Your task to perform on an android device: uninstall "Calculator" Image 0: 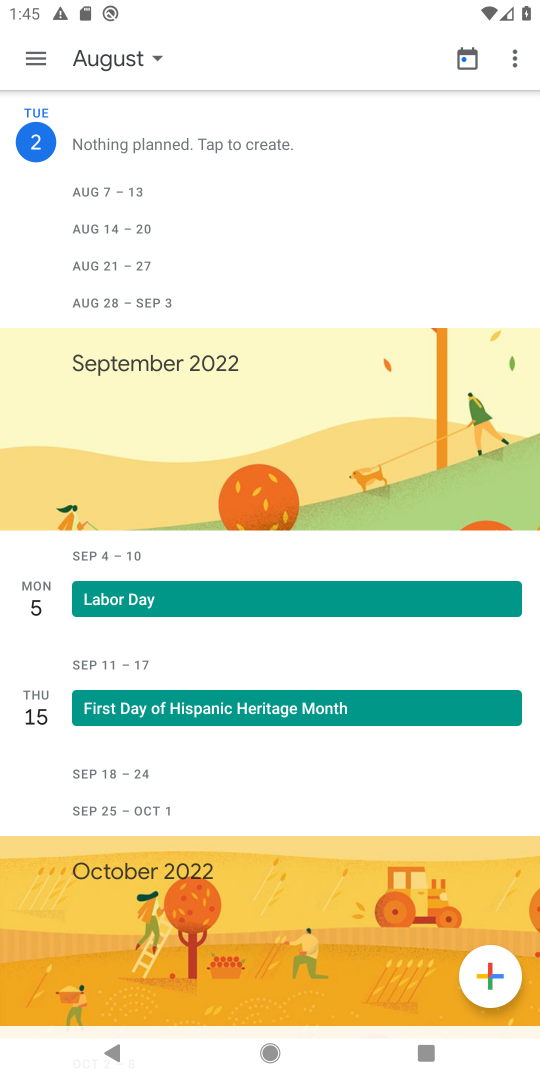
Step 0: press home button
Your task to perform on an android device: uninstall "Calculator" Image 1: 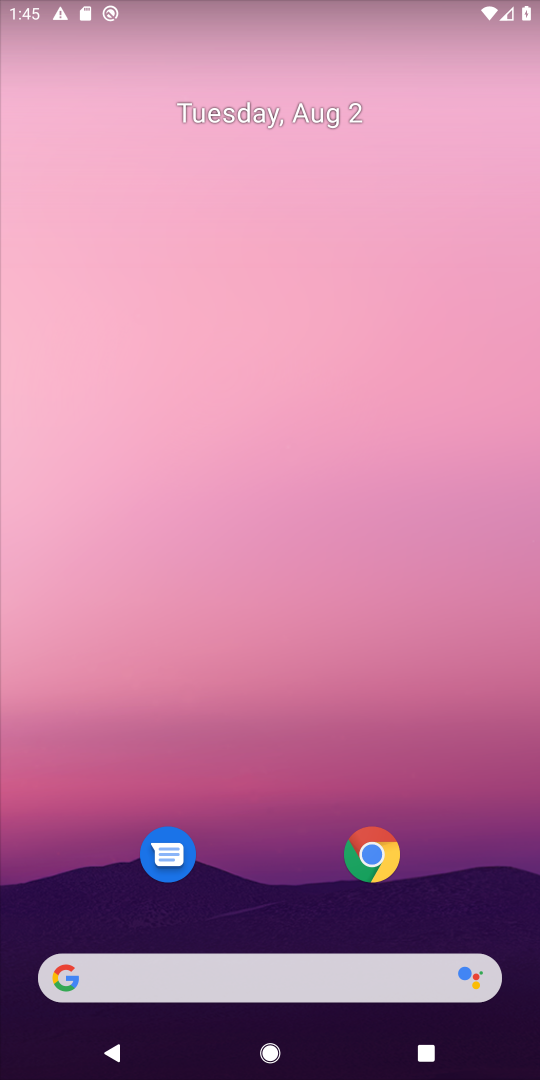
Step 1: drag from (301, 680) to (304, 231)
Your task to perform on an android device: uninstall "Calculator" Image 2: 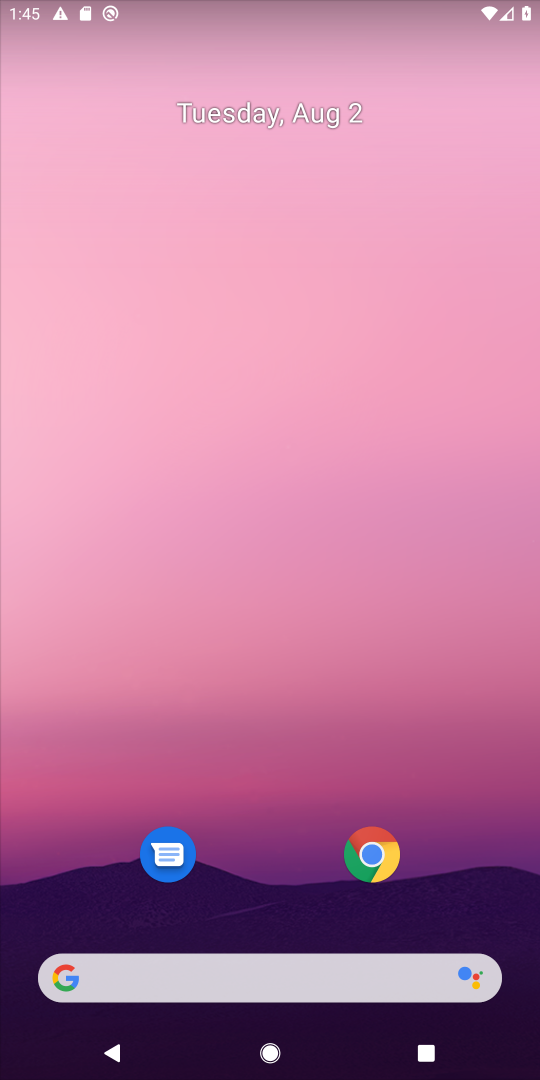
Step 2: drag from (300, 1070) to (293, 161)
Your task to perform on an android device: uninstall "Calculator" Image 3: 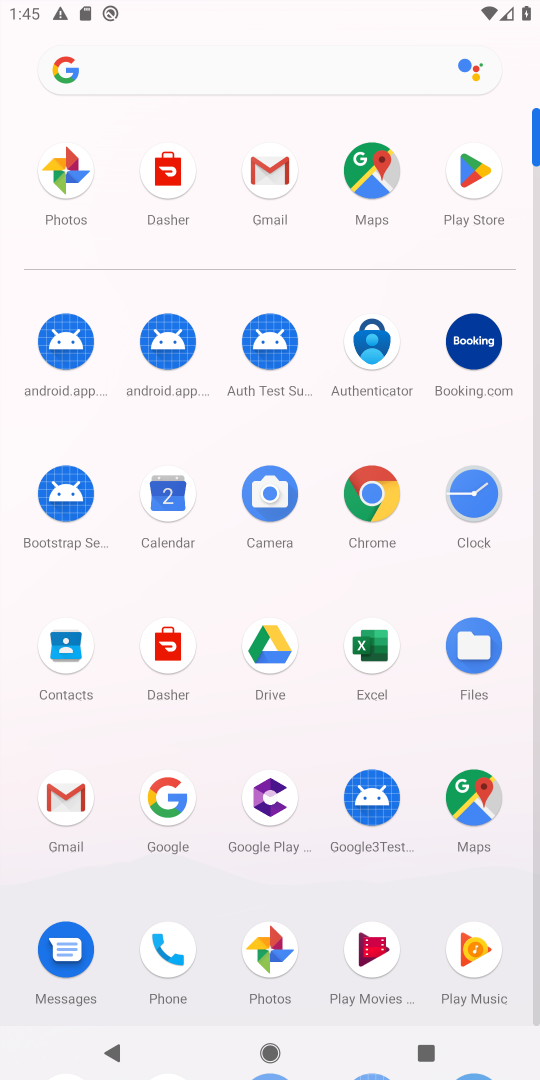
Step 3: click (468, 172)
Your task to perform on an android device: uninstall "Calculator" Image 4: 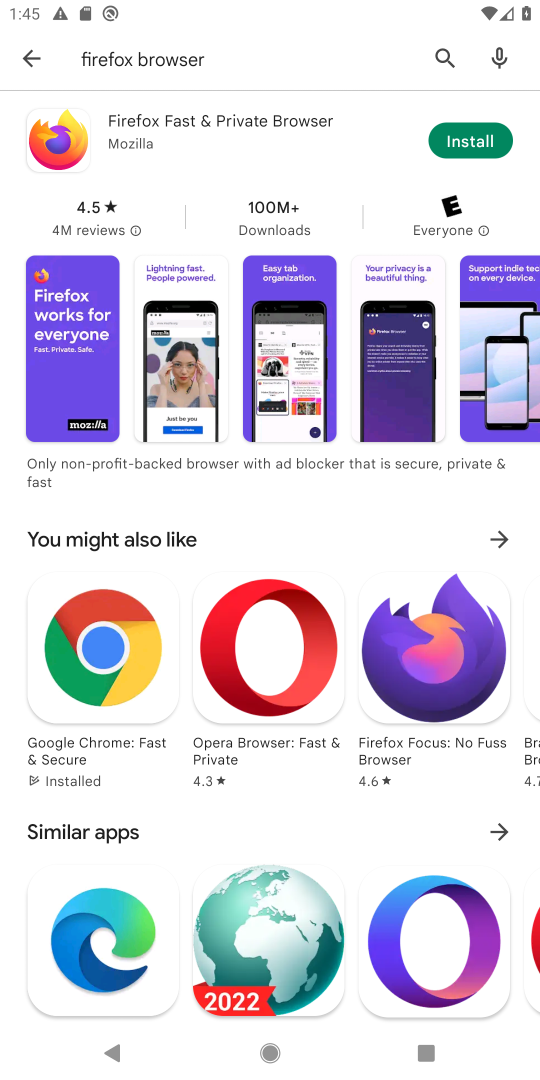
Step 4: click (438, 55)
Your task to perform on an android device: uninstall "Calculator" Image 5: 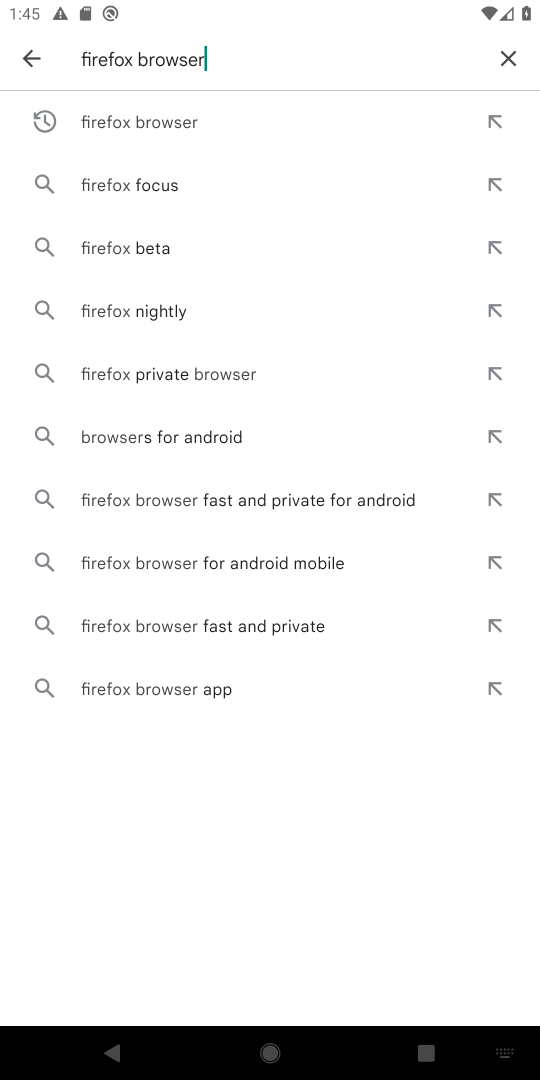
Step 5: click (509, 58)
Your task to perform on an android device: uninstall "Calculator" Image 6: 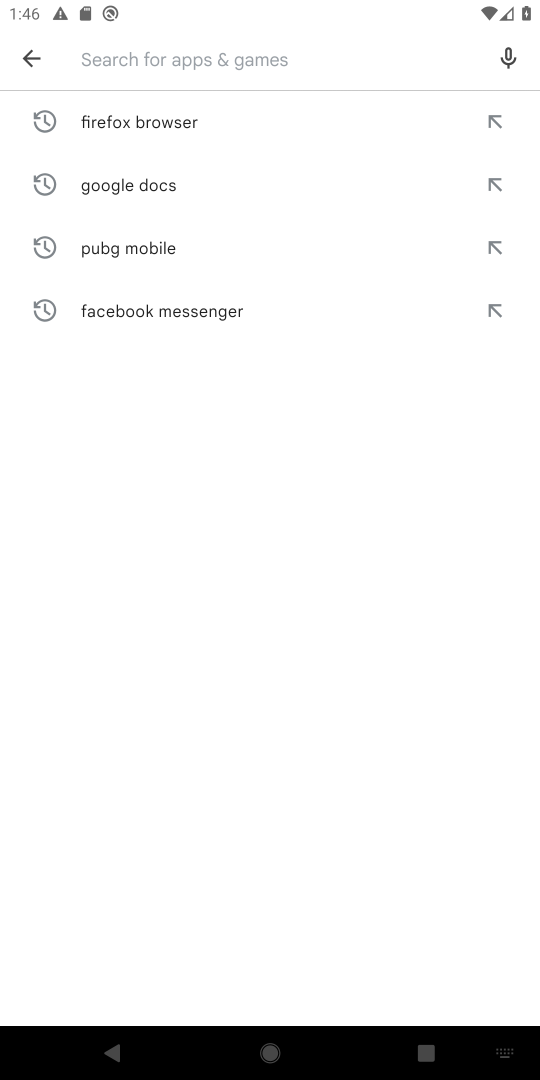
Step 6: type "Calculator"
Your task to perform on an android device: uninstall "Calculator" Image 7: 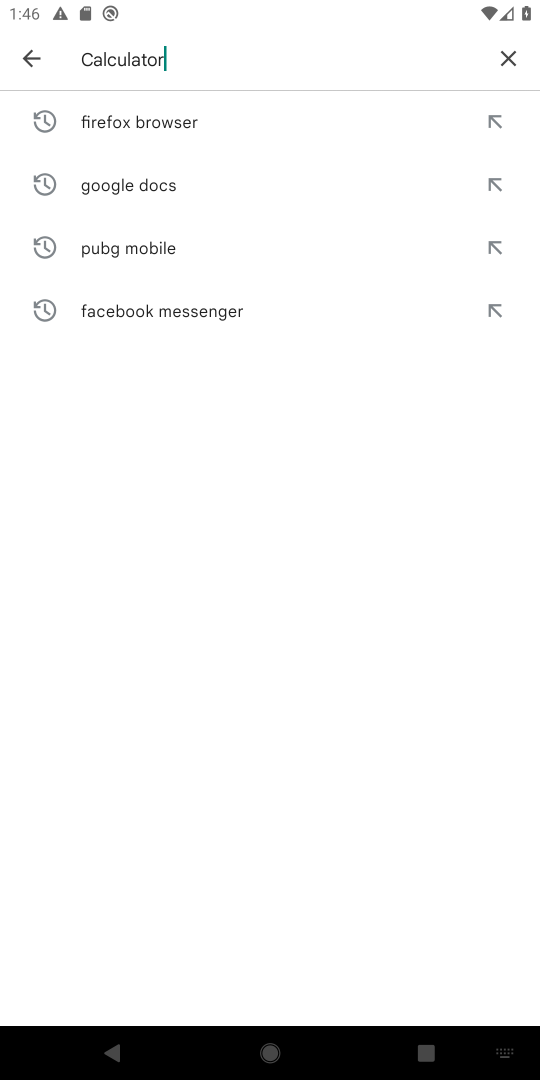
Step 7: type ""
Your task to perform on an android device: uninstall "Calculator" Image 8: 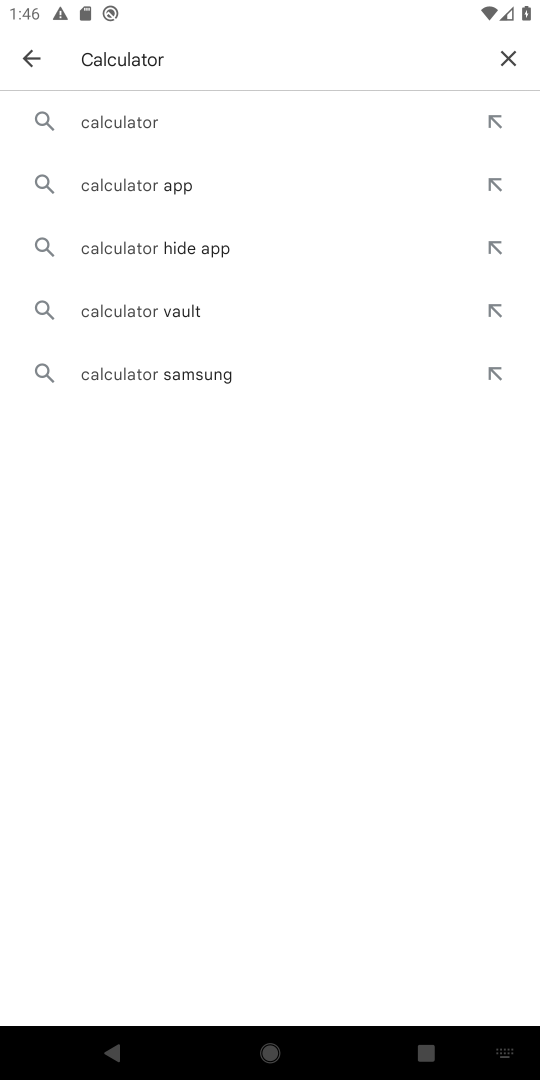
Step 8: click (127, 124)
Your task to perform on an android device: uninstall "Calculator" Image 9: 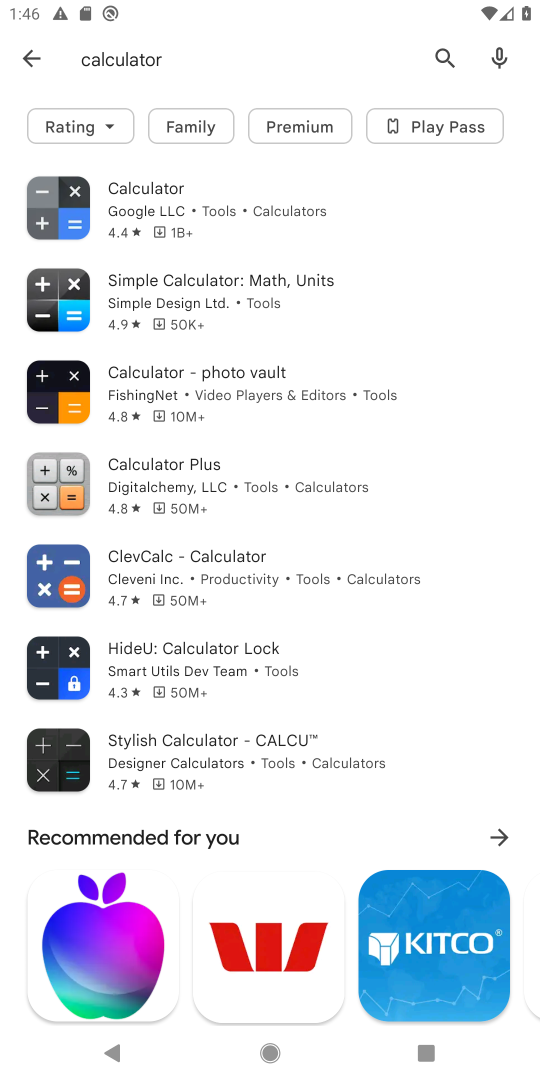
Step 9: click (142, 192)
Your task to perform on an android device: uninstall "Calculator" Image 10: 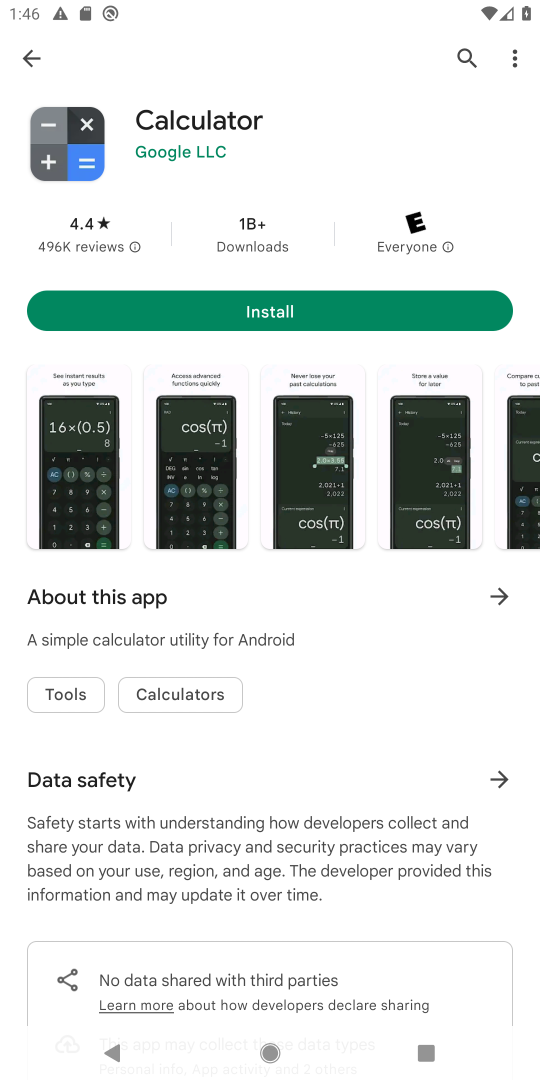
Step 10: task complete